Your task to perform on an android device: View the shopping cart on bestbuy.com. Search for "razer kraken" on bestbuy.com, select the first entry, and add it to the cart. Image 0: 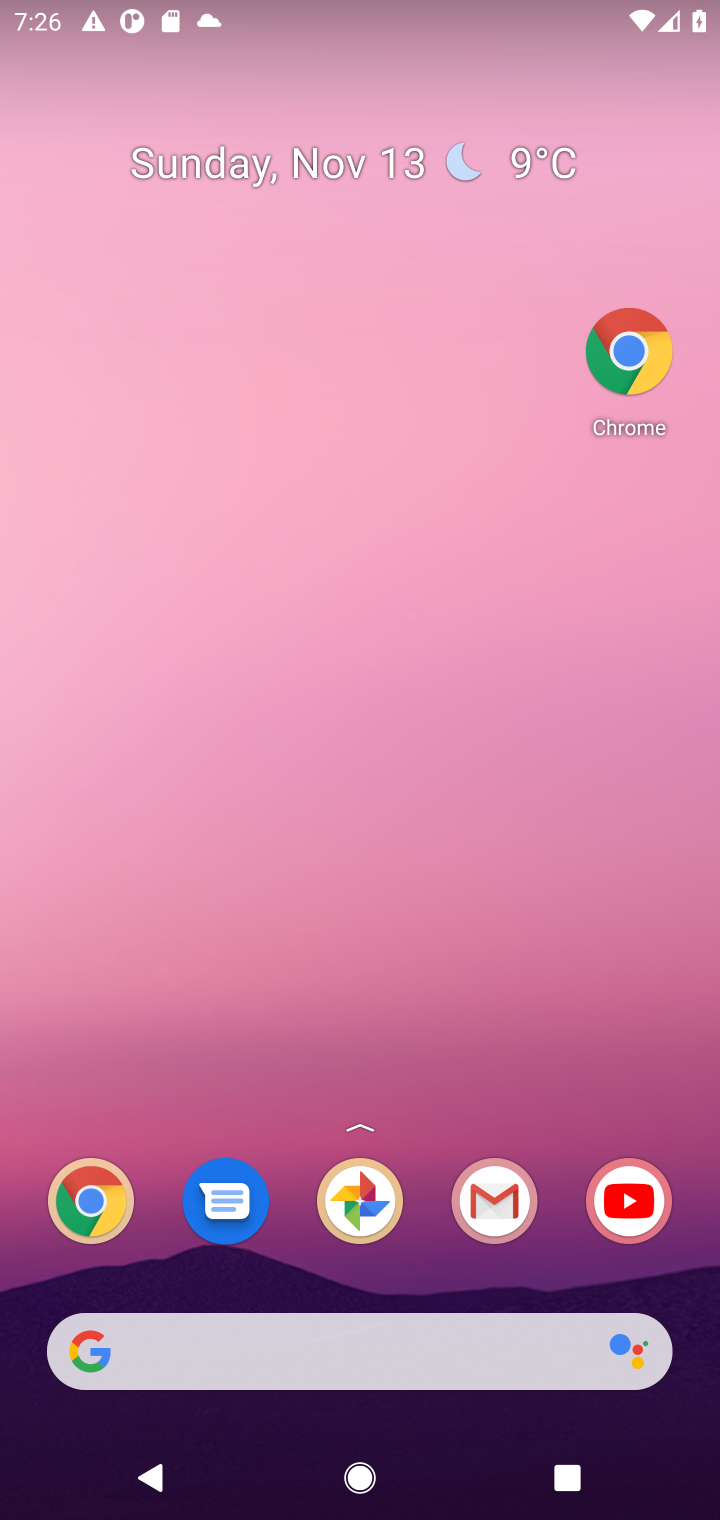
Step 0: drag from (445, 1249) to (399, 273)
Your task to perform on an android device: View the shopping cart on bestbuy.com. Search for "razer kraken" on bestbuy.com, select the first entry, and add it to the cart. Image 1: 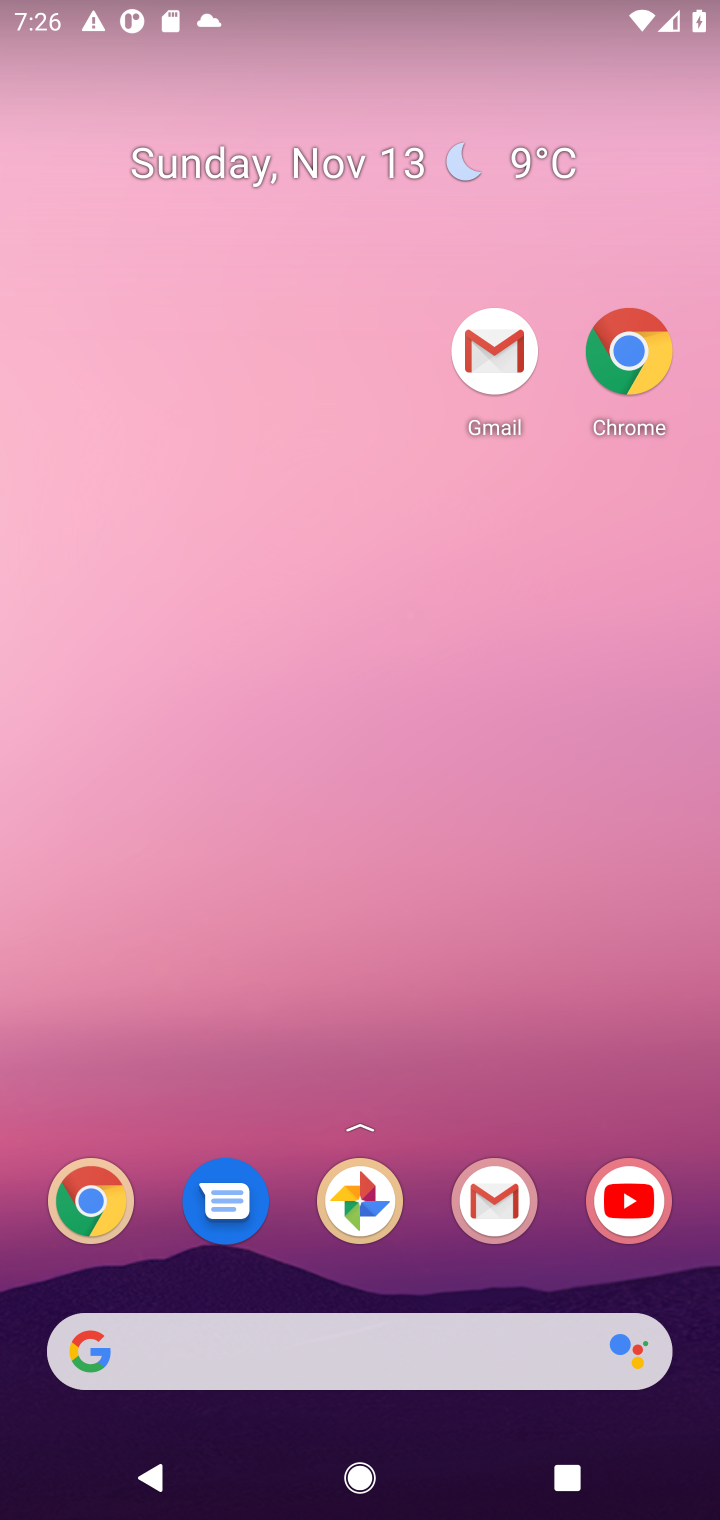
Step 1: drag from (305, 1269) to (368, 158)
Your task to perform on an android device: View the shopping cart on bestbuy.com. Search for "razer kraken" on bestbuy.com, select the first entry, and add it to the cart. Image 2: 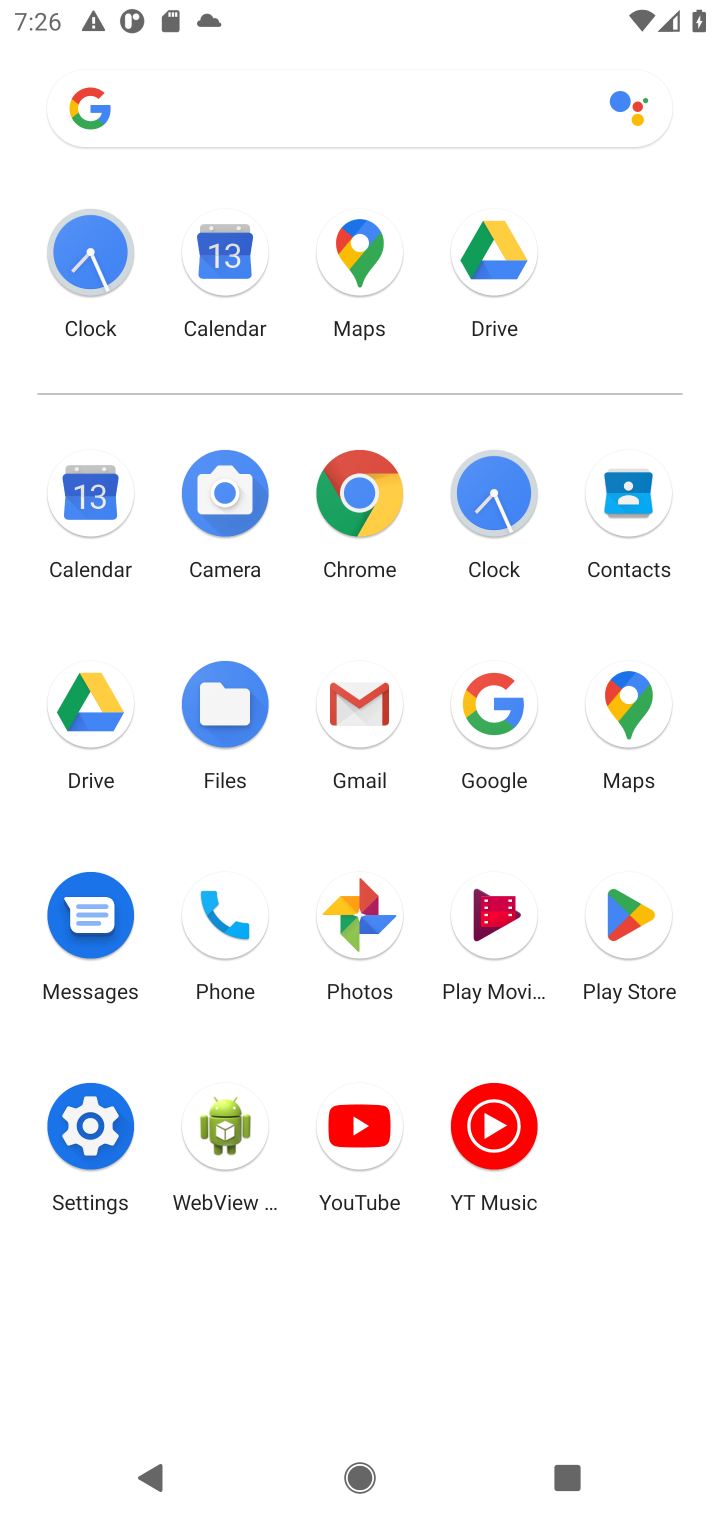
Step 2: click (367, 499)
Your task to perform on an android device: View the shopping cart on bestbuy.com. Search for "razer kraken" on bestbuy.com, select the first entry, and add it to the cart. Image 3: 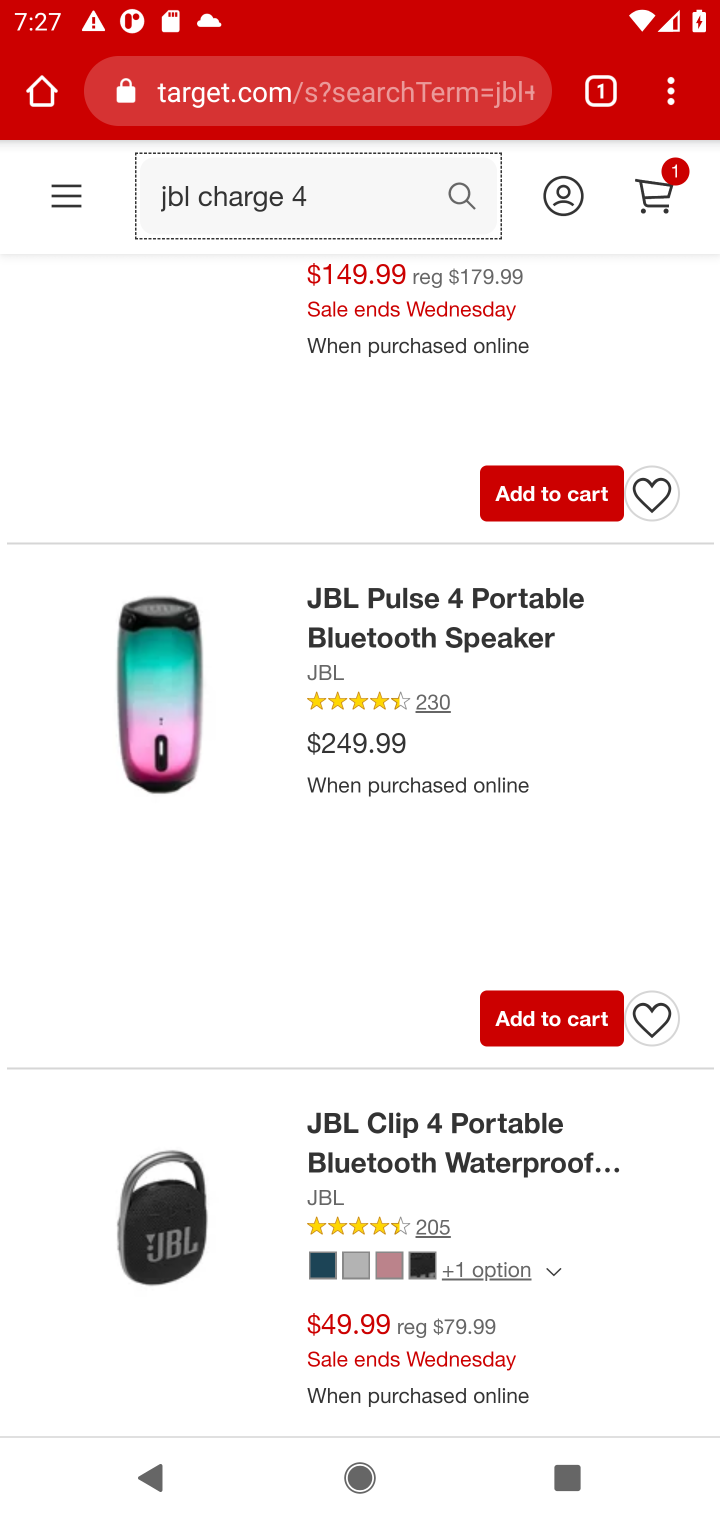
Step 3: click (415, 90)
Your task to perform on an android device: View the shopping cart on bestbuy.com. Search for "razer kraken" on bestbuy.com, select the first entry, and add it to the cart. Image 4: 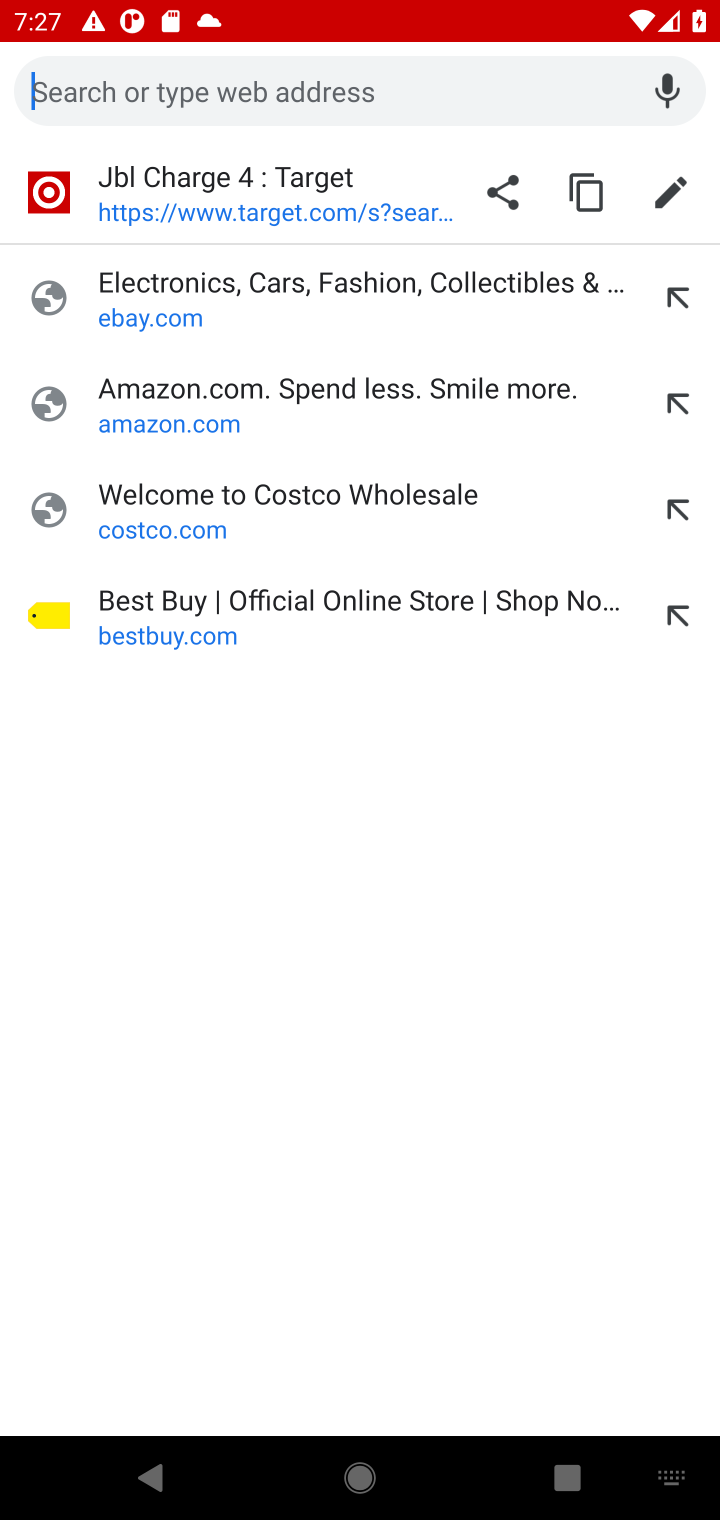
Step 4: type "bestbuy.com"
Your task to perform on an android device: View the shopping cart on bestbuy.com. Search for "razer kraken" on bestbuy.com, select the first entry, and add it to the cart. Image 5: 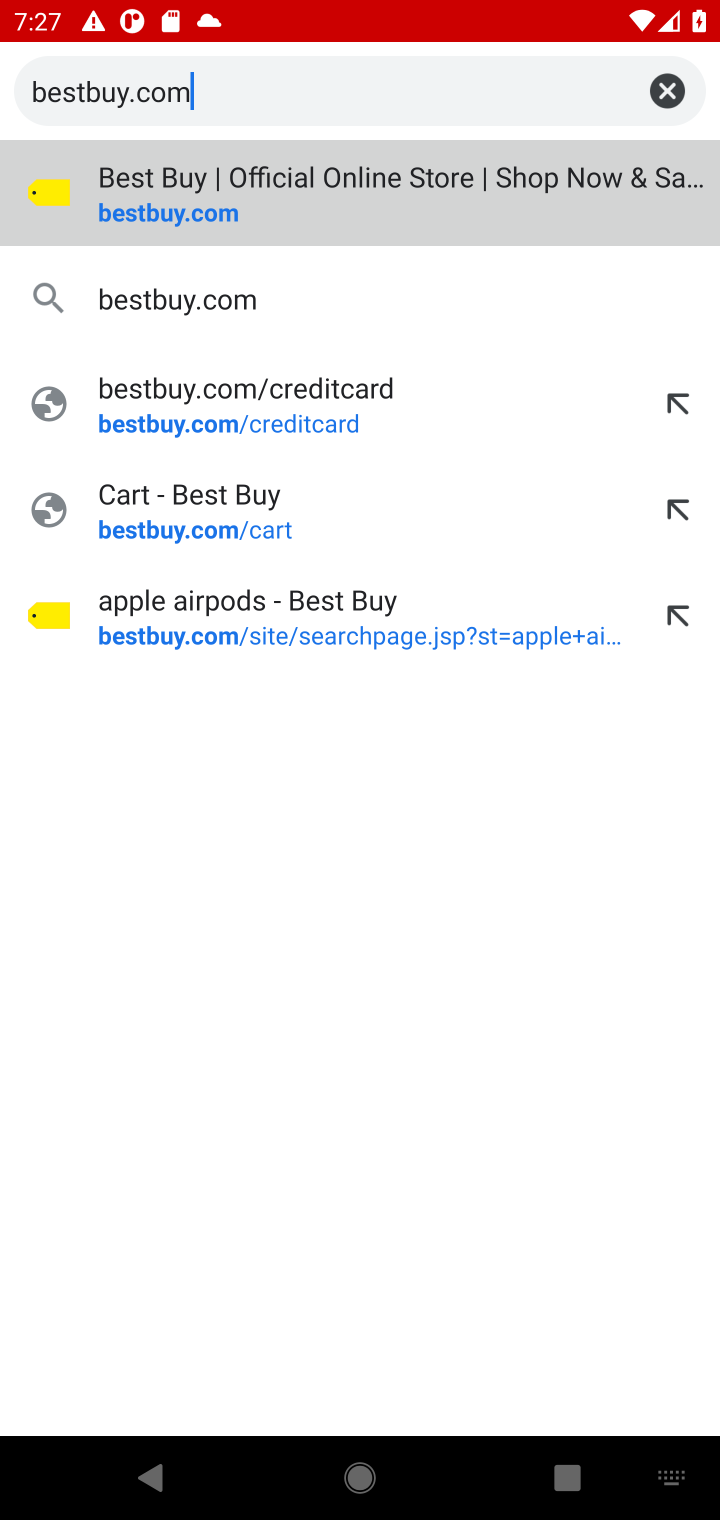
Step 5: press enter
Your task to perform on an android device: View the shopping cart on bestbuy.com. Search for "razer kraken" on bestbuy.com, select the first entry, and add it to the cart. Image 6: 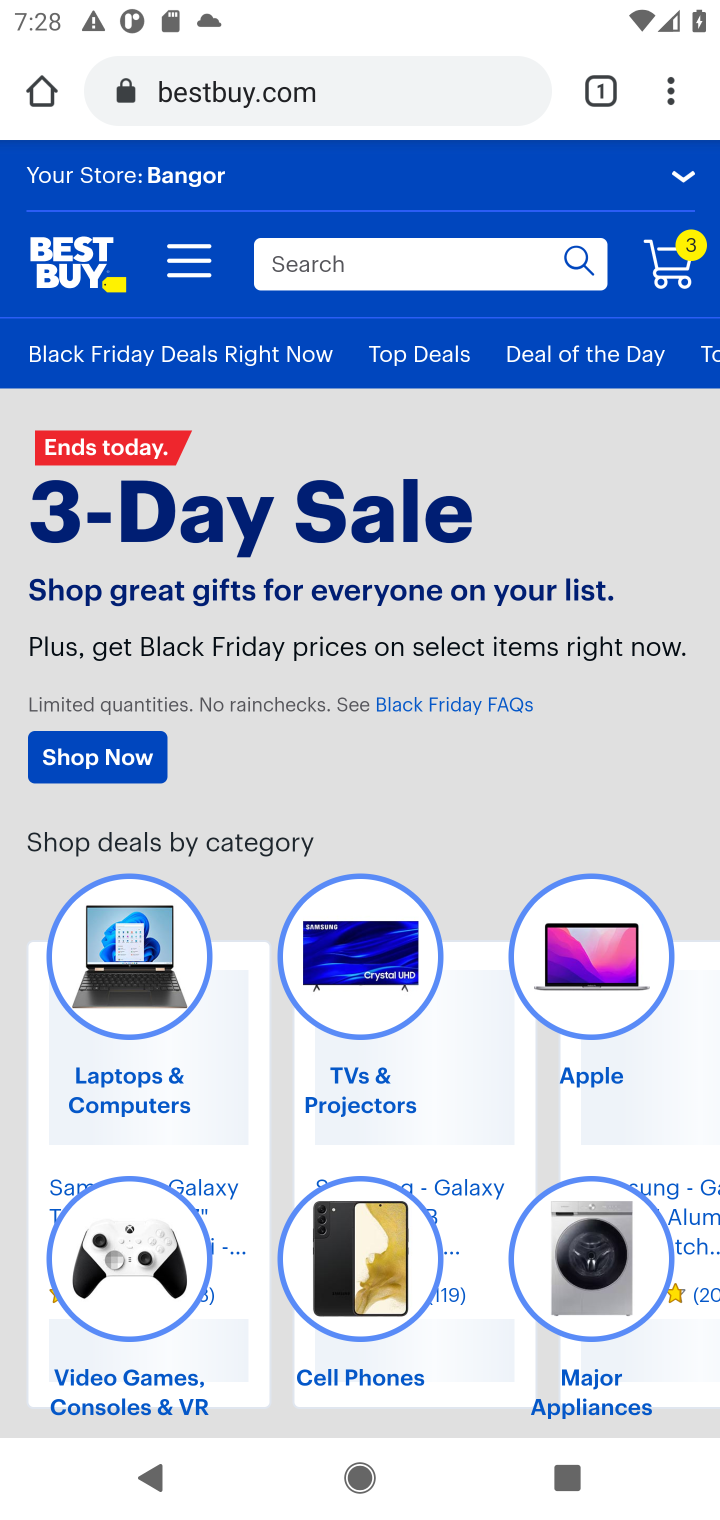
Step 6: click (670, 250)
Your task to perform on an android device: View the shopping cart on bestbuy.com. Search for "razer kraken" on bestbuy.com, select the first entry, and add it to the cart. Image 7: 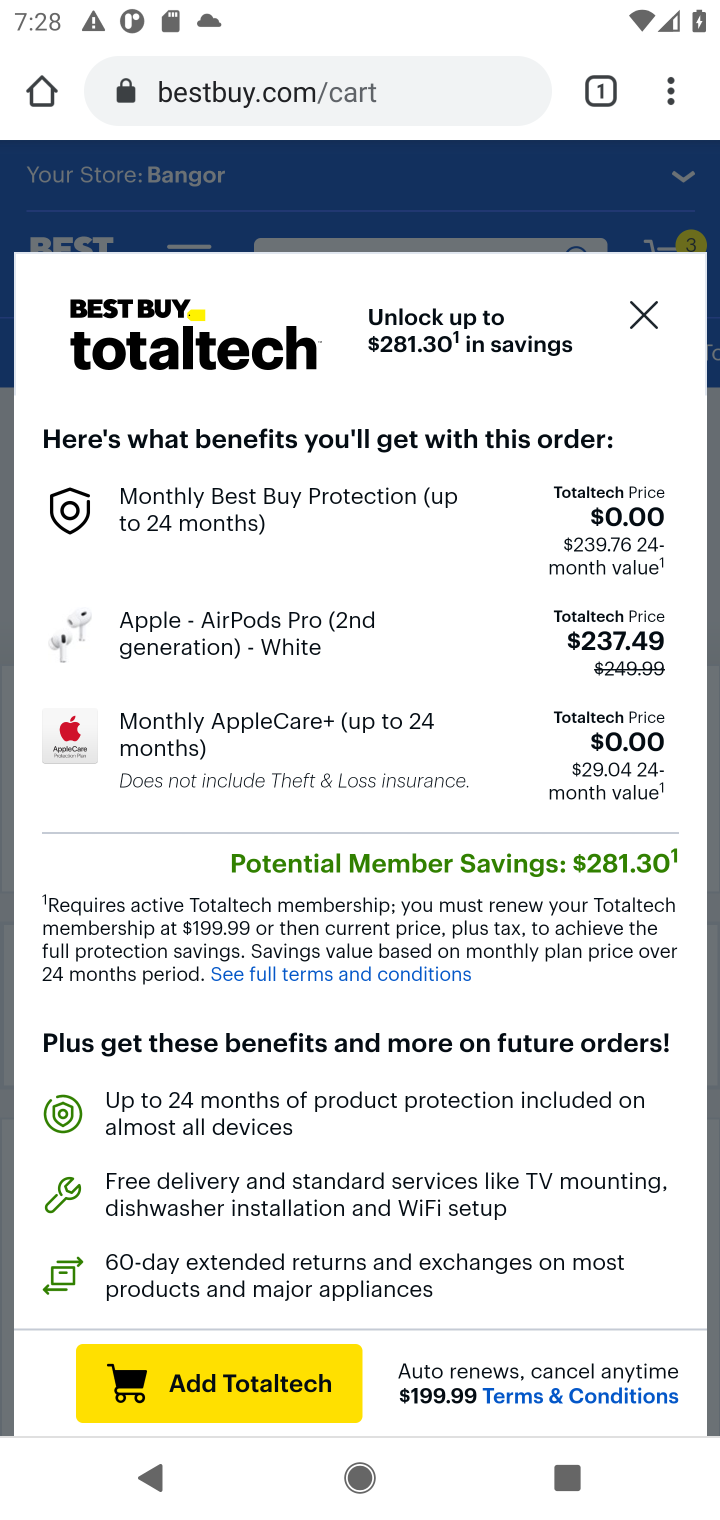
Step 7: click (641, 305)
Your task to perform on an android device: View the shopping cart on bestbuy.com. Search for "razer kraken" on bestbuy.com, select the first entry, and add it to the cart. Image 8: 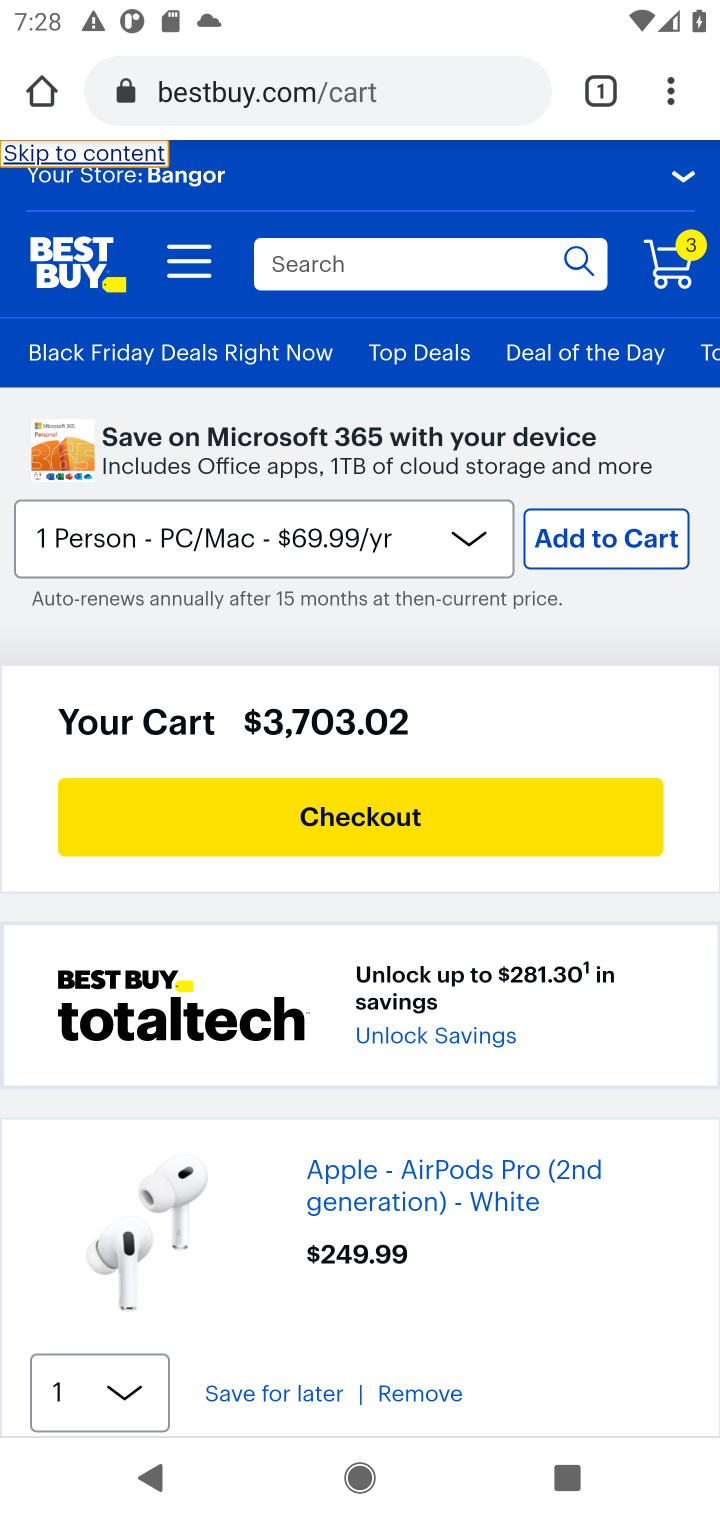
Step 8: click (665, 267)
Your task to perform on an android device: View the shopping cart on bestbuy.com. Search for "razer kraken" on bestbuy.com, select the first entry, and add it to the cart. Image 9: 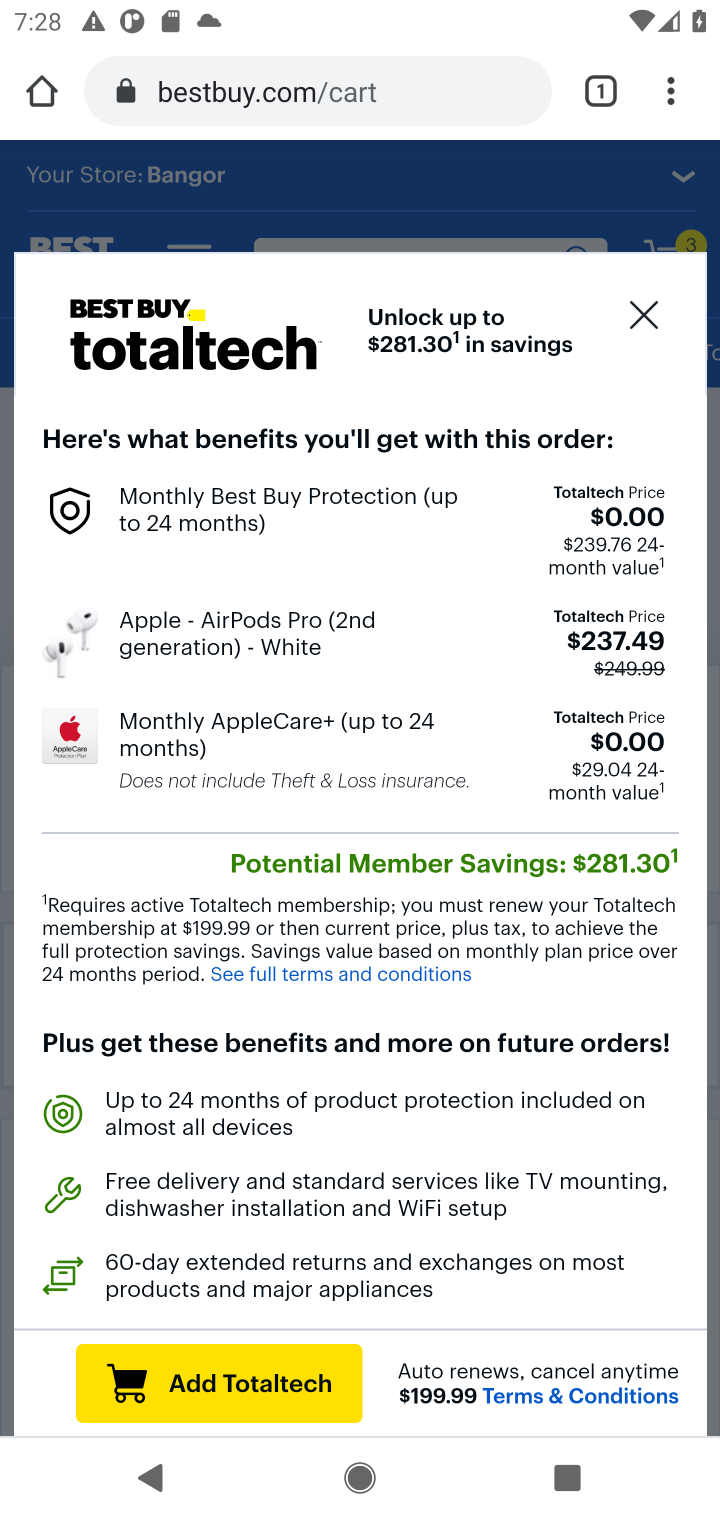
Step 9: click (651, 302)
Your task to perform on an android device: View the shopping cart on bestbuy.com. Search for "razer kraken" on bestbuy.com, select the first entry, and add it to the cart. Image 10: 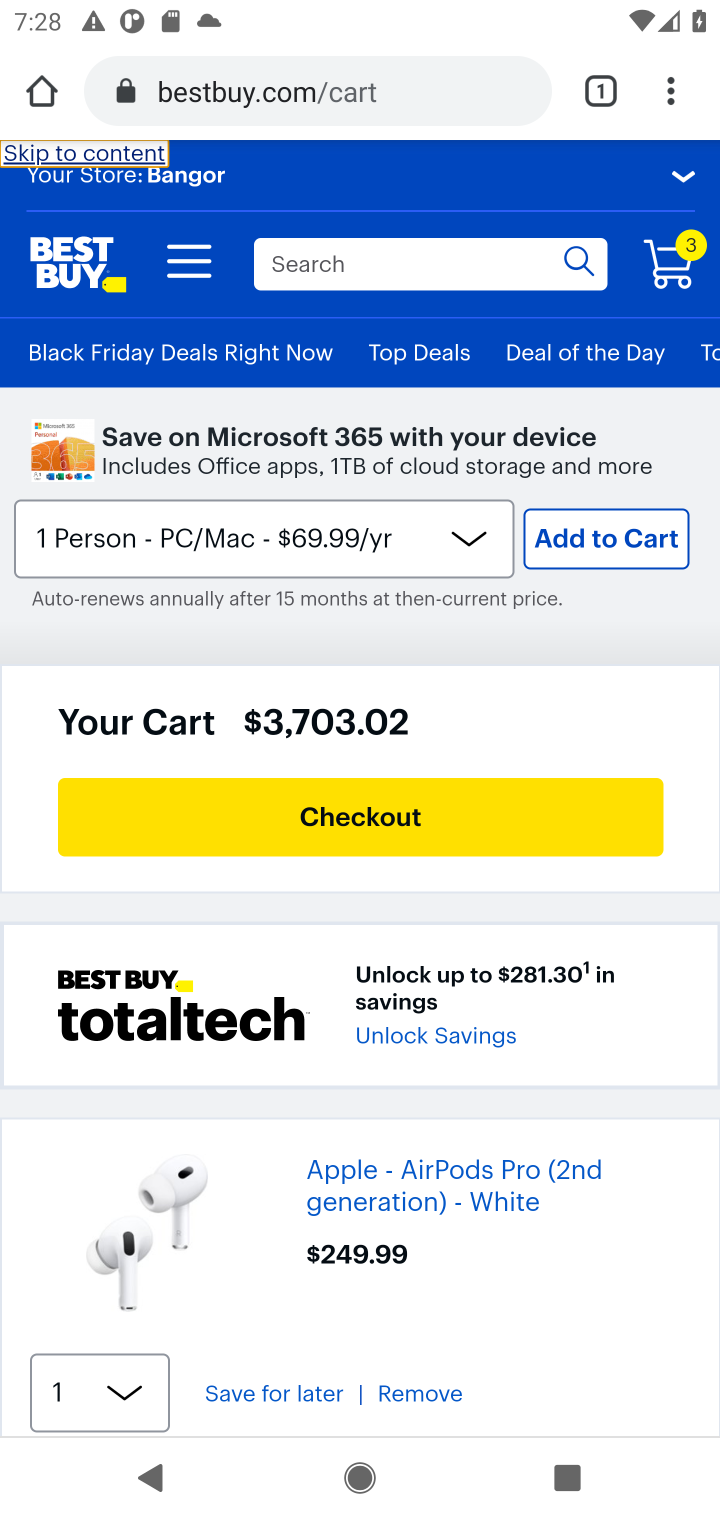
Step 10: click (406, 267)
Your task to perform on an android device: View the shopping cart on bestbuy.com. Search for "razer kraken" on bestbuy.com, select the first entry, and add it to the cart. Image 11: 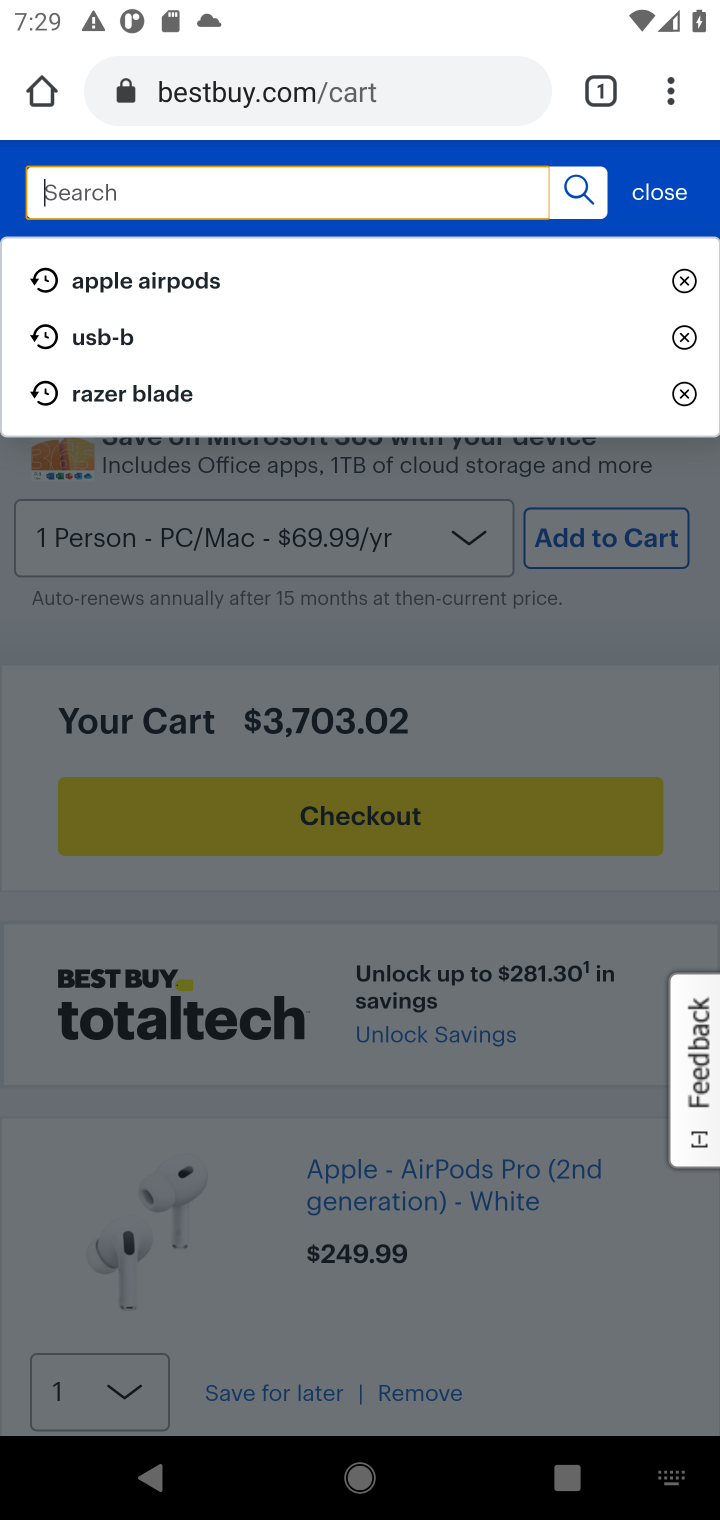
Step 11: type "razer kraken"
Your task to perform on an android device: View the shopping cart on bestbuy.com. Search for "razer kraken" on bestbuy.com, select the first entry, and add it to the cart. Image 12: 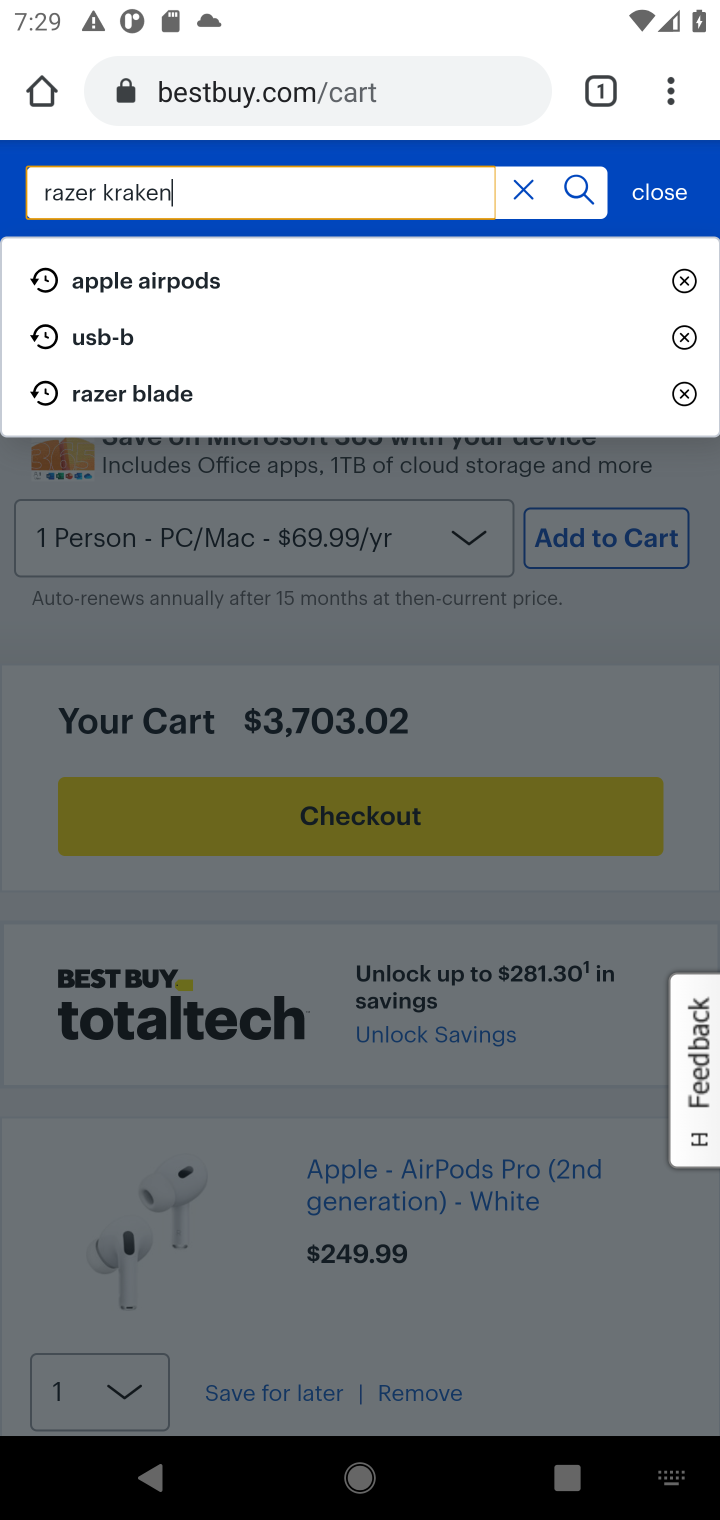
Step 12: press enter
Your task to perform on an android device: View the shopping cart on bestbuy.com. Search for "razer kraken" on bestbuy.com, select the first entry, and add it to the cart. Image 13: 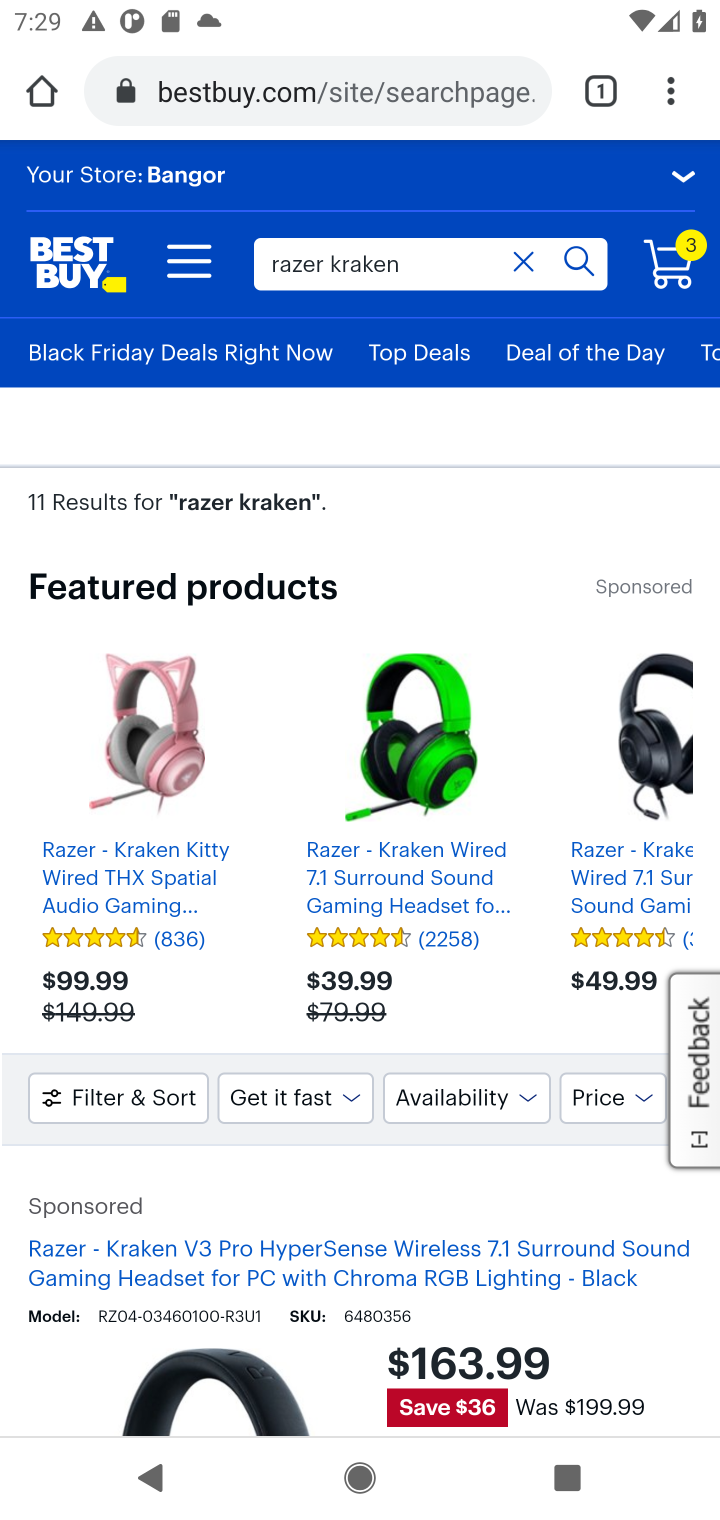
Step 13: drag from (343, 1080) to (433, 92)
Your task to perform on an android device: View the shopping cart on bestbuy.com. Search for "razer kraken" on bestbuy.com, select the first entry, and add it to the cart. Image 14: 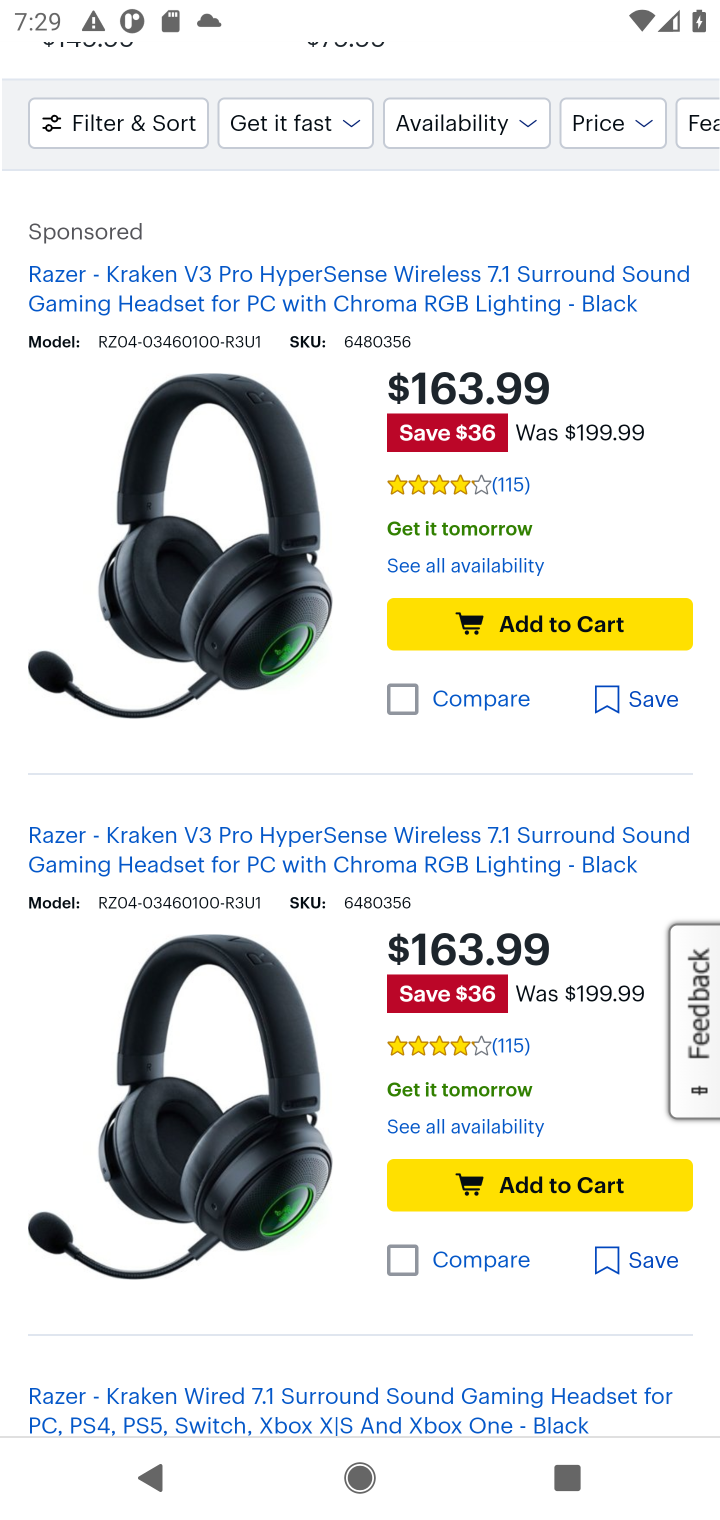
Step 14: click (512, 1178)
Your task to perform on an android device: View the shopping cart on bestbuy.com. Search for "razer kraken" on bestbuy.com, select the first entry, and add it to the cart. Image 15: 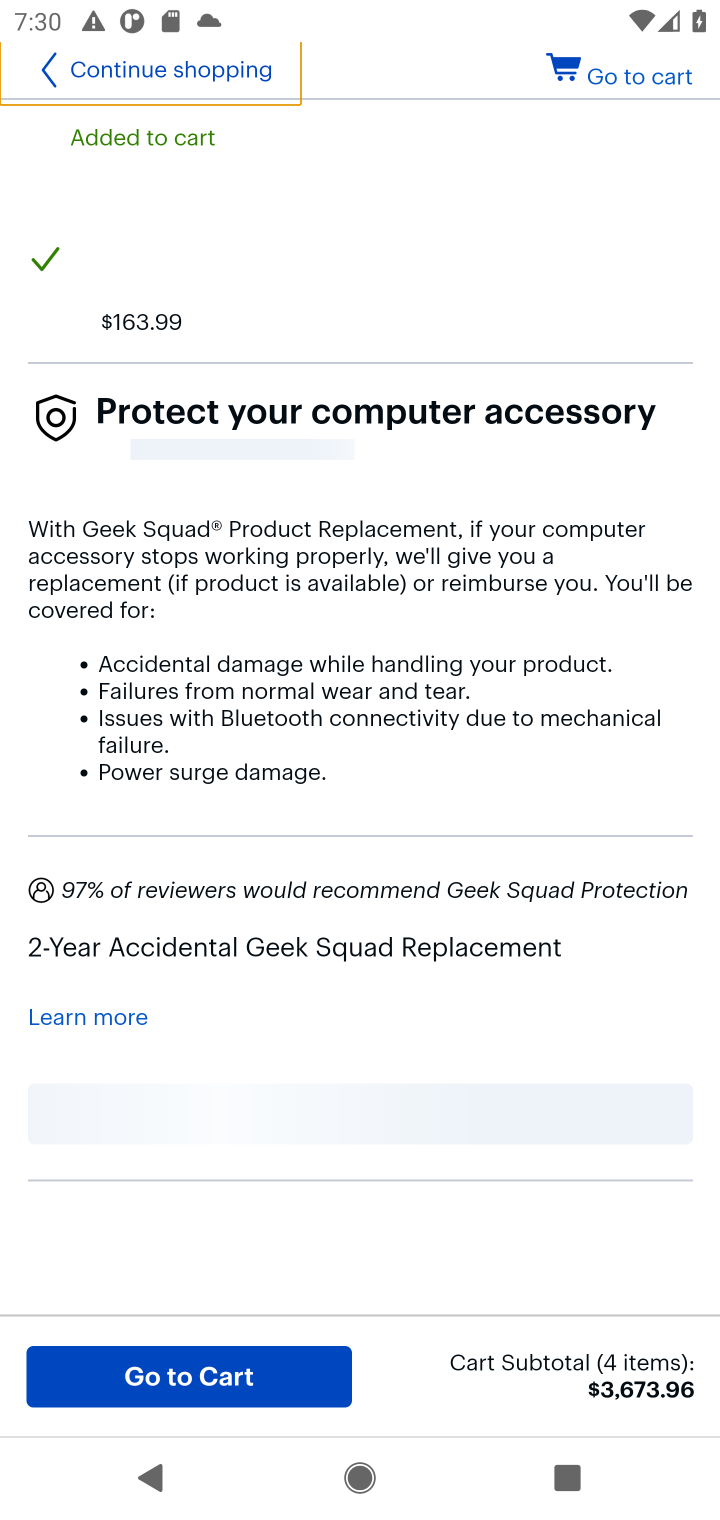
Step 15: task complete